Your task to perform on an android device: Go to notification settings Image 0: 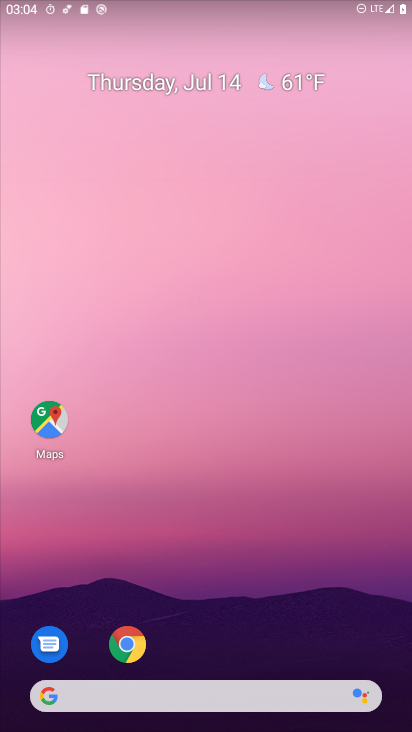
Step 0: drag from (314, 565) to (281, 42)
Your task to perform on an android device: Go to notification settings Image 1: 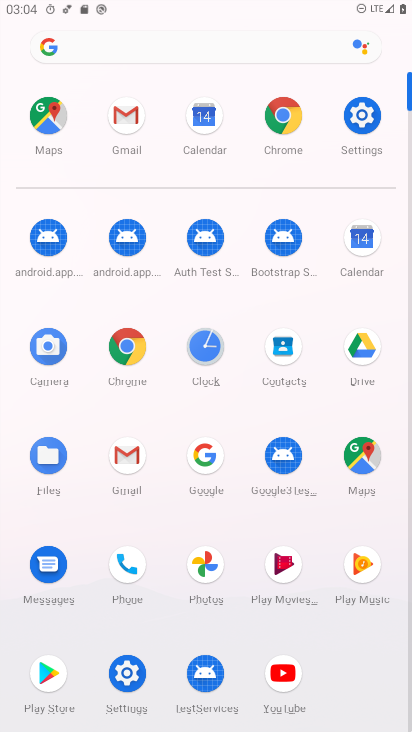
Step 1: click (354, 118)
Your task to perform on an android device: Go to notification settings Image 2: 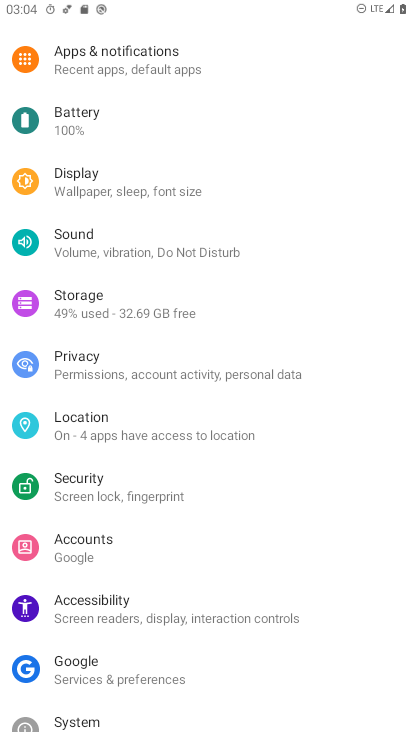
Step 2: click (151, 55)
Your task to perform on an android device: Go to notification settings Image 3: 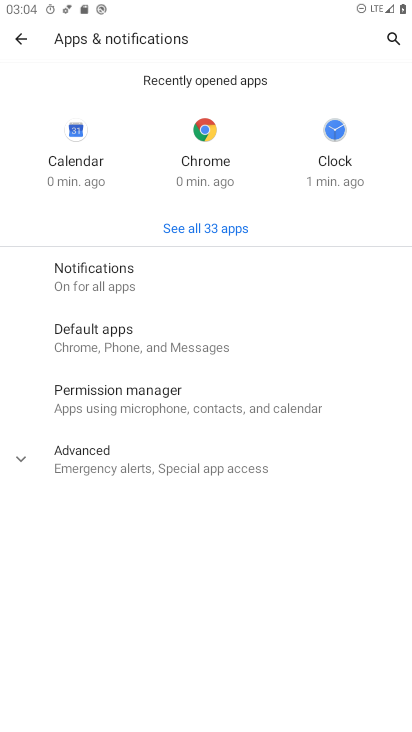
Step 3: click (122, 274)
Your task to perform on an android device: Go to notification settings Image 4: 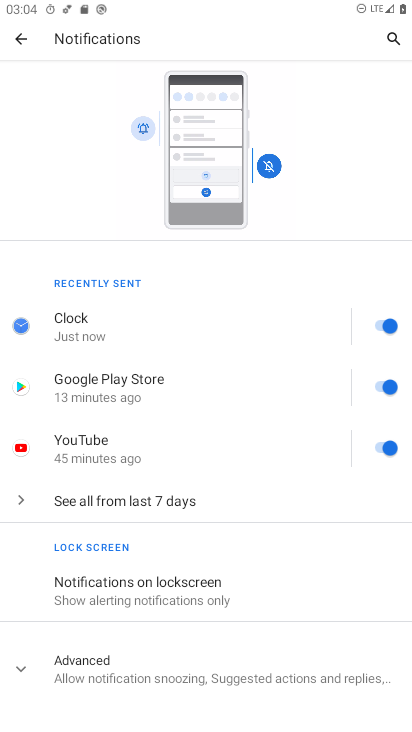
Step 4: task complete